Your task to perform on an android device: Open the Play Movies app and select the watchlist tab. Image 0: 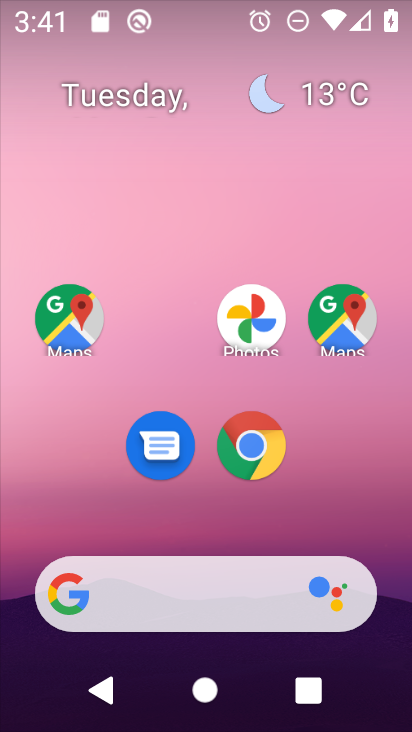
Step 0: drag from (393, 556) to (404, 283)
Your task to perform on an android device: Open the Play Movies app and select the watchlist tab. Image 1: 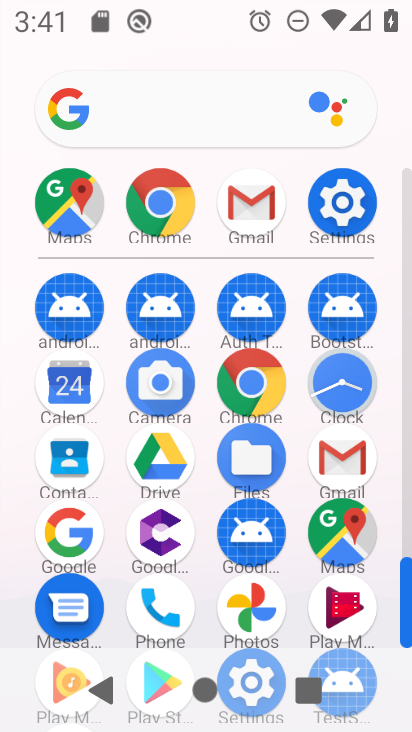
Step 1: drag from (385, 622) to (391, 339)
Your task to perform on an android device: Open the Play Movies app and select the watchlist tab. Image 2: 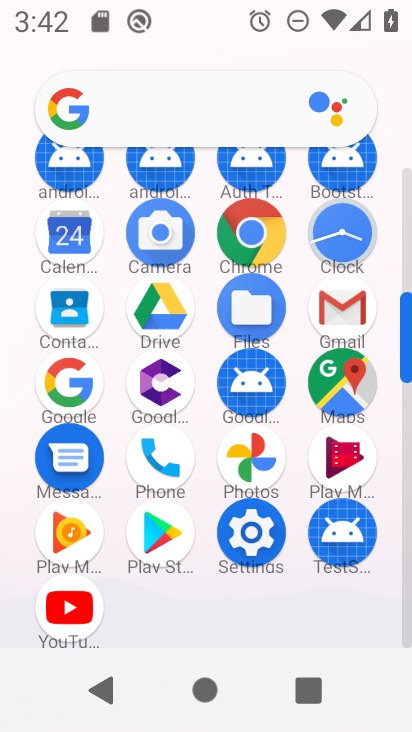
Step 2: click (365, 466)
Your task to perform on an android device: Open the Play Movies app and select the watchlist tab. Image 3: 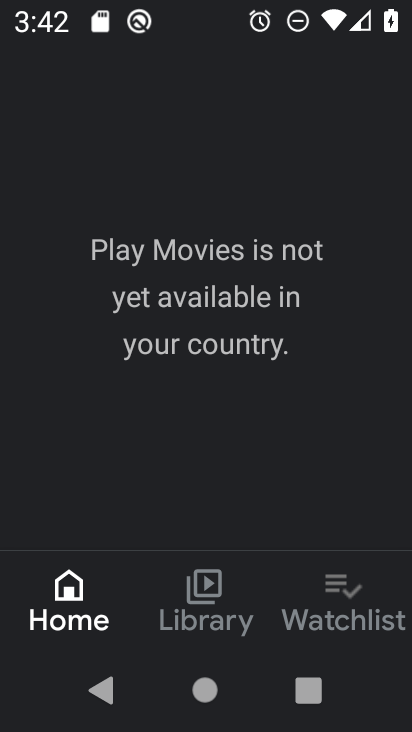
Step 3: click (346, 582)
Your task to perform on an android device: Open the Play Movies app and select the watchlist tab. Image 4: 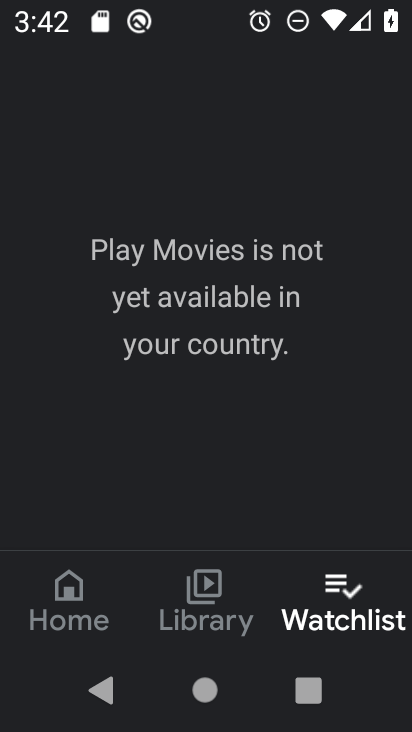
Step 4: task complete